Your task to perform on an android device: Open eBay Image 0: 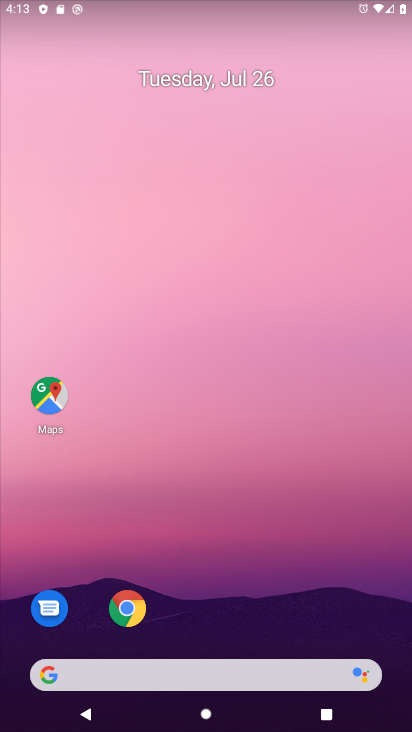
Step 0: click (127, 606)
Your task to perform on an android device: Open eBay Image 1: 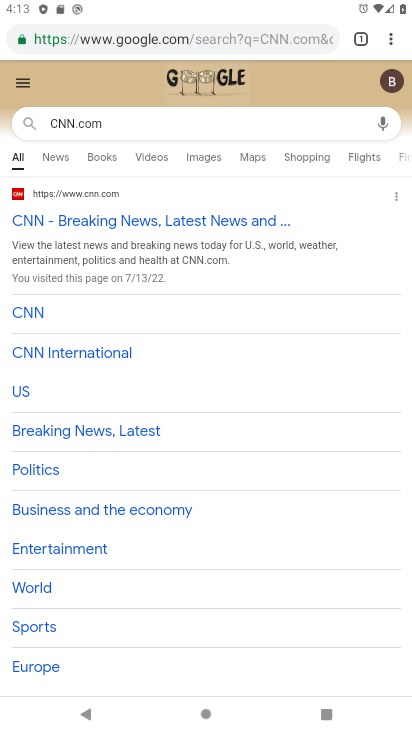
Step 1: click (292, 42)
Your task to perform on an android device: Open eBay Image 2: 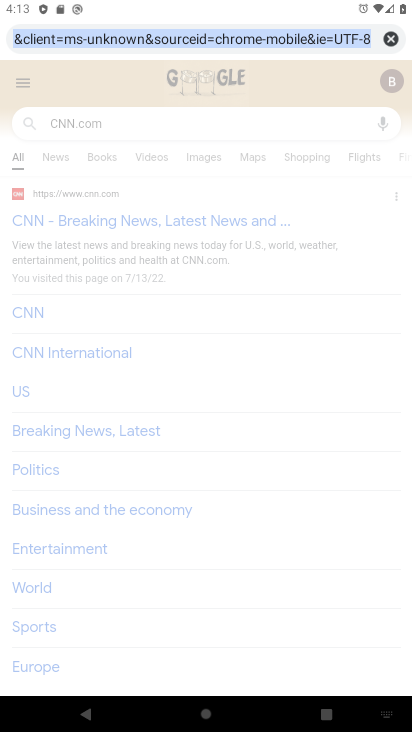
Step 2: click (383, 40)
Your task to perform on an android device: Open eBay Image 3: 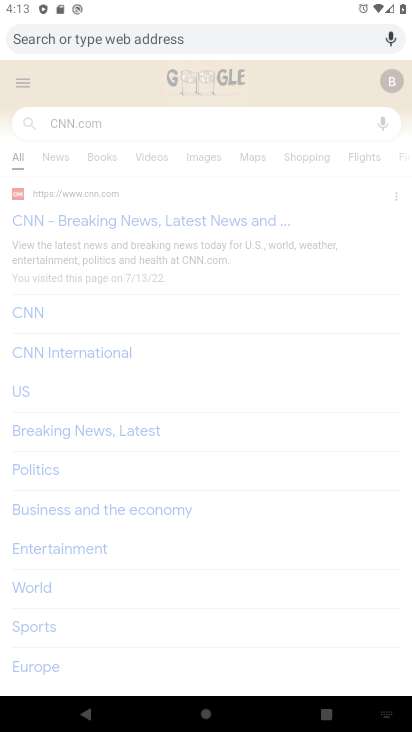
Step 3: type "eBay"
Your task to perform on an android device: Open eBay Image 4: 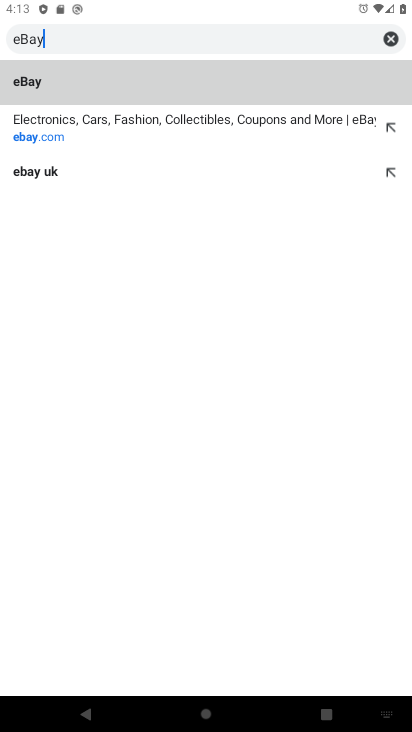
Step 4: click (24, 87)
Your task to perform on an android device: Open eBay Image 5: 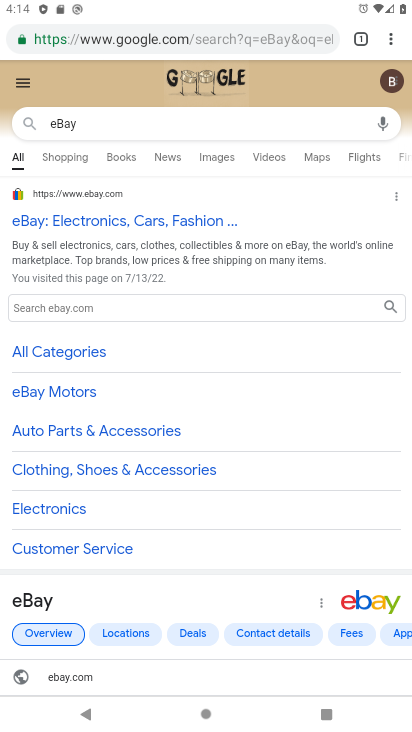
Step 5: task complete